Your task to perform on an android device: uninstall "Firefox Browser" Image 0: 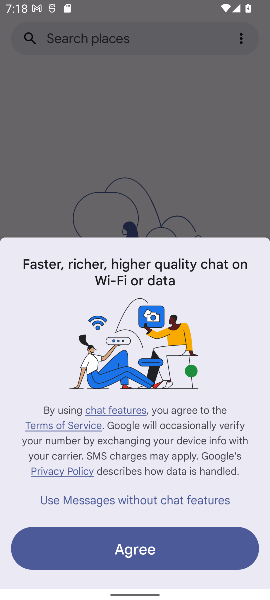
Step 0: press home button
Your task to perform on an android device: uninstall "Firefox Browser" Image 1: 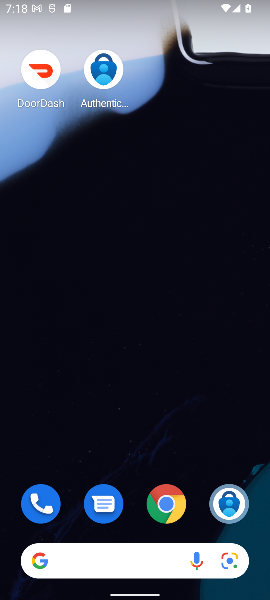
Step 1: drag from (127, 560) to (164, 30)
Your task to perform on an android device: uninstall "Firefox Browser" Image 2: 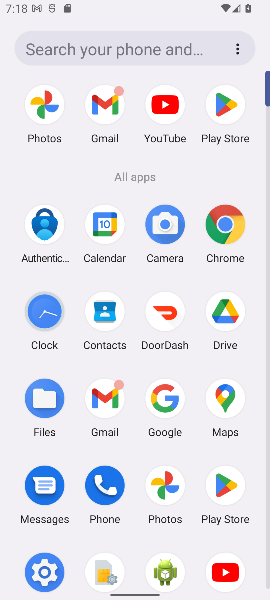
Step 2: click (227, 107)
Your task to perform on an android device: uninstall "Firefox Browser" Image 3: 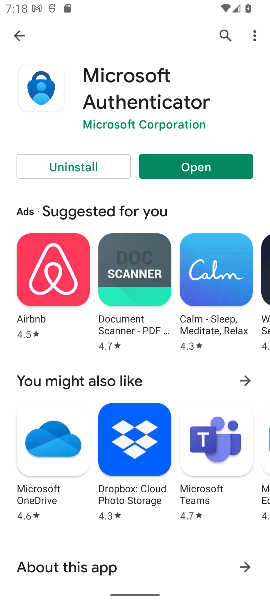
Step 3: click (219, 27)
Your task to perform on an android device: uninstall "Firefox Browser" Image 4: 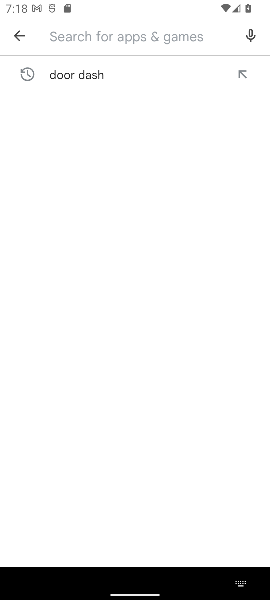
Step 4: type "Firefox Browser"
Your task to perform on an android device: uninstall "Firefox Browser" Image 5: 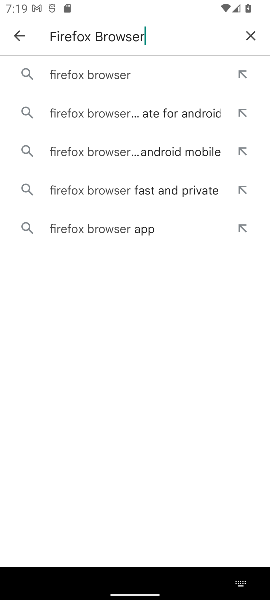
Step 5: click (107, 78)
Your task to perform on an android device: uninstall "Firefox Browser" Image 6: 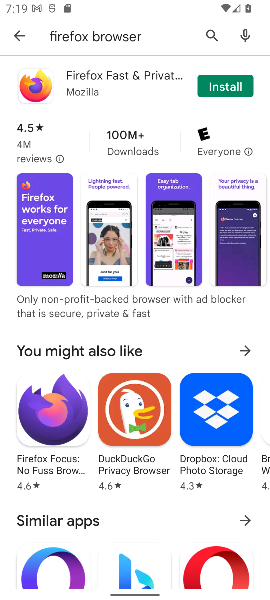
Step 6: task complete